Your task to perform on an android device: Open maps Image 0: 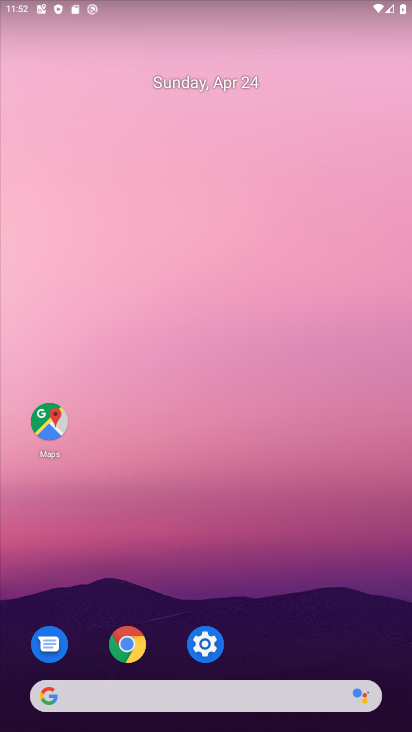
Step 0: drag from (261, 717) to (261, 232)
Your task to perform on an android device: Open maps Image 1: 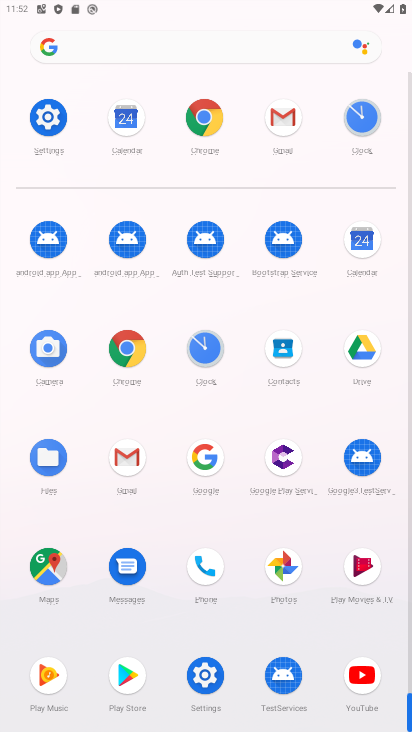
Step 1: click (53, 565)
Your task to perform on an android device: Open maps Image 2: 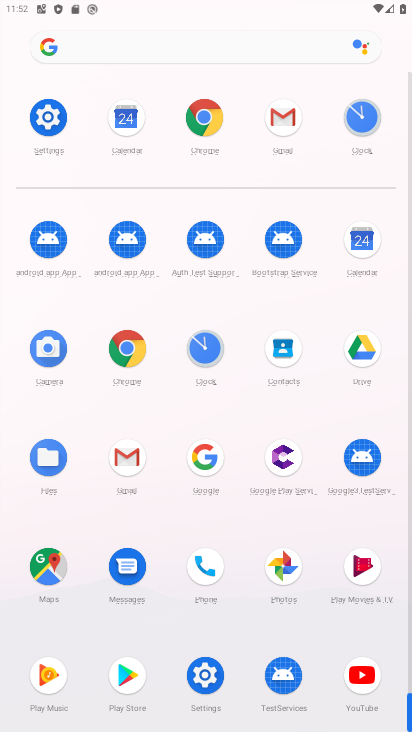
Step 2: click (48, 567)
Your task to perform on an android device: Open maps Image 3: 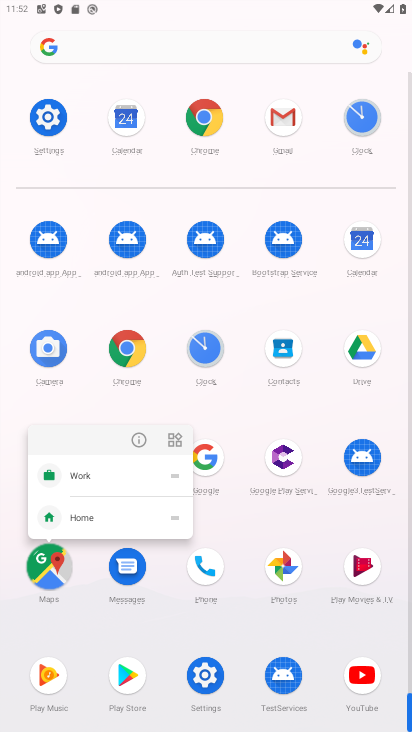
Step 3: click (47, 567)
Your task to perform on an android device: Open maps Image 4: 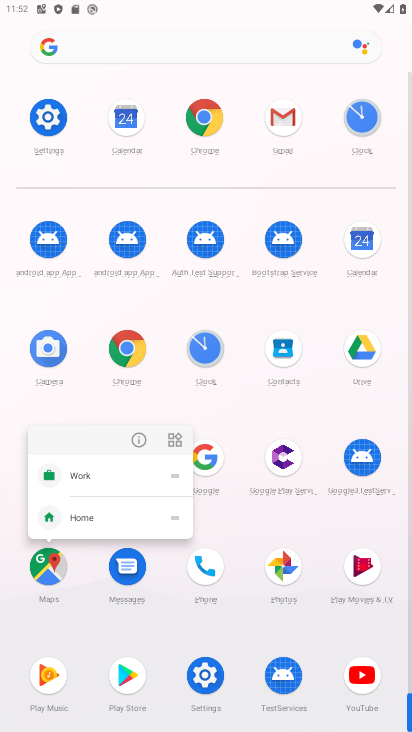
Step 4: click (37, 562)
Your task to perform on an android device: Open maps Image 5: 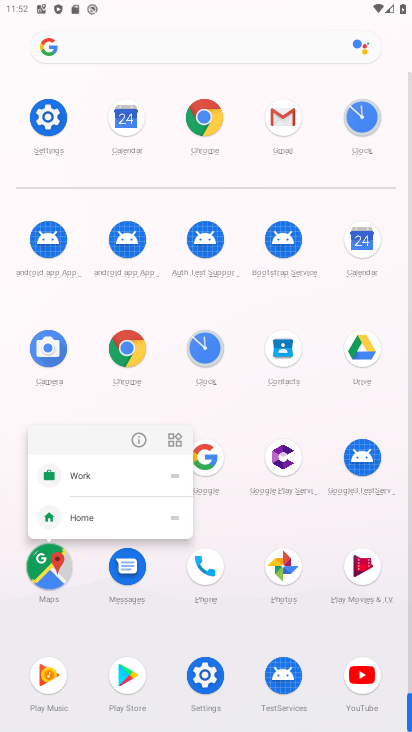
Step 5: click (40, 573)
Your task to perform on an android device: Open maps Image 6: 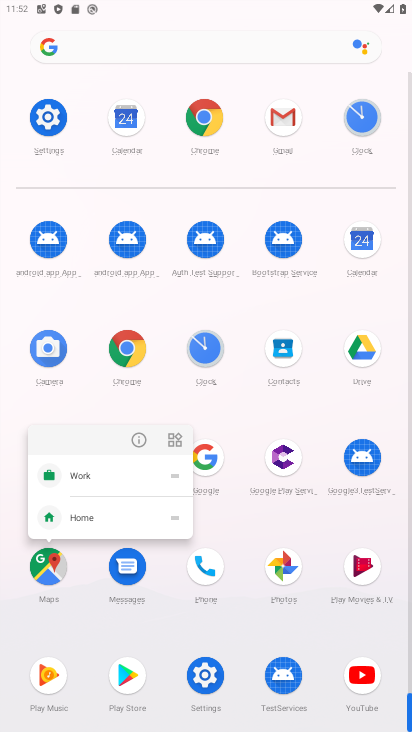
Step 6: click (42, 576)
Your task to perform on an android device: Open maps Image 7: 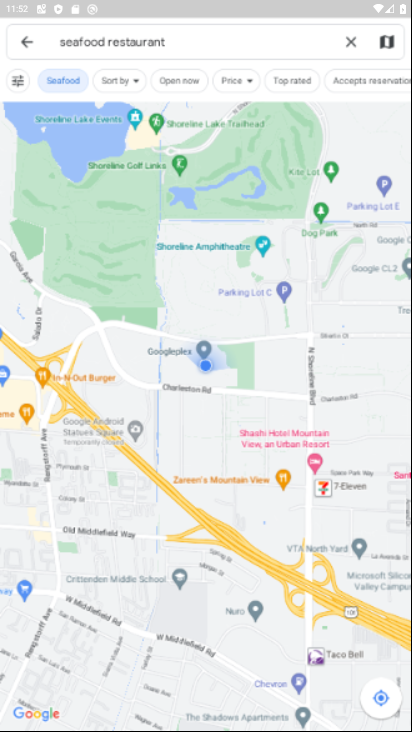
Step 7: click (44, 579)
Your task to perform on an android device: Open maps Image 8: 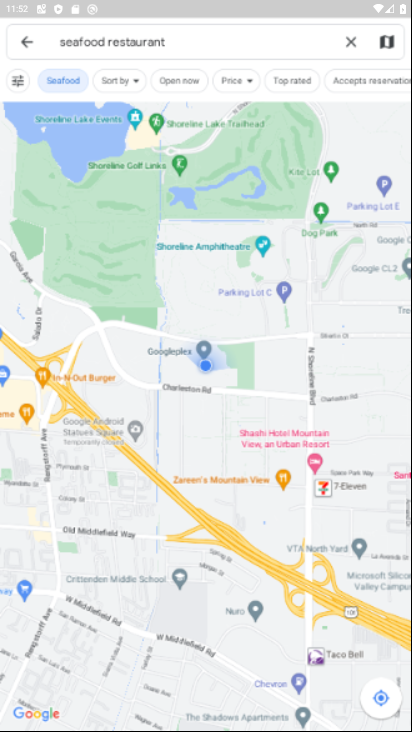
Step 8: click (50, 569)
Your task to perform on an android device: Open maps Image 9: 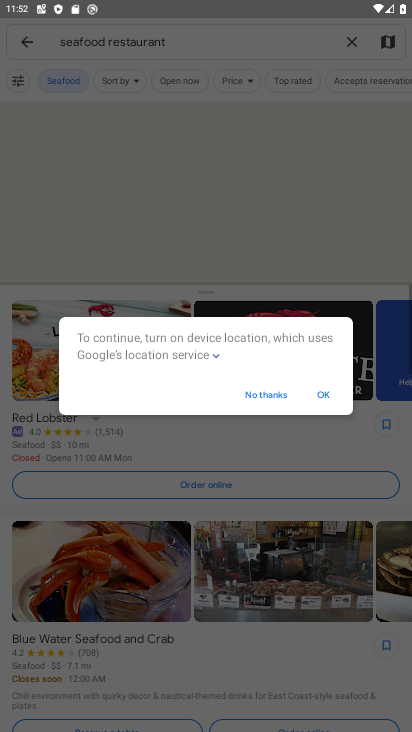
Step 9: task complete